Your task to perform on an android device: stop showing notifications on the lock screen Image 0: 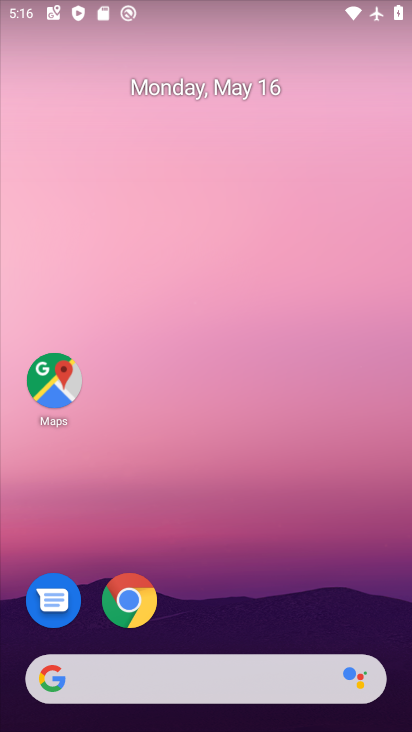
Step 0: drag from (216, 649) to (156, 59)
Your task to perform on an android device: stop showing notifications on the lock screen Image 1: 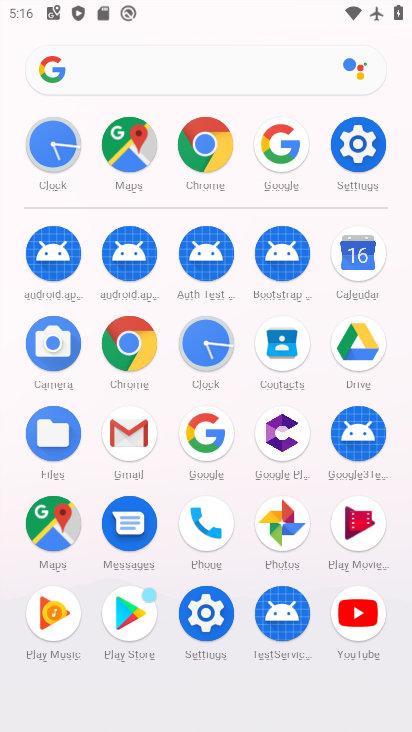
Step 1: click (199, 619)
Your task to perform on an android device: stop showing notifications on the lock screen Image 2: 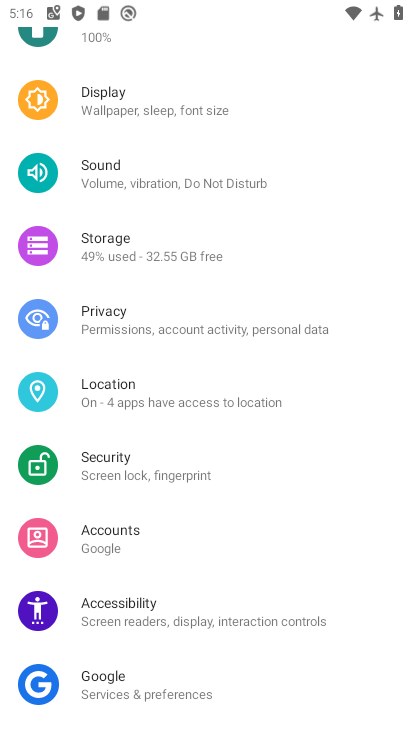
Step 2: drag from (184, 357) to (231, 673)
Your task to perform on an android device: stop showing notifications on the lock screen Image 3: 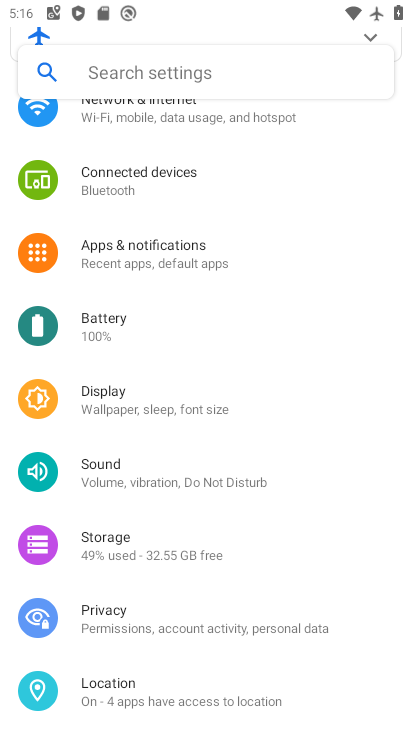
Step 3: click (160, 257)
Your task to perform on an android device: stop showing notifications on the lock screen Image 4: 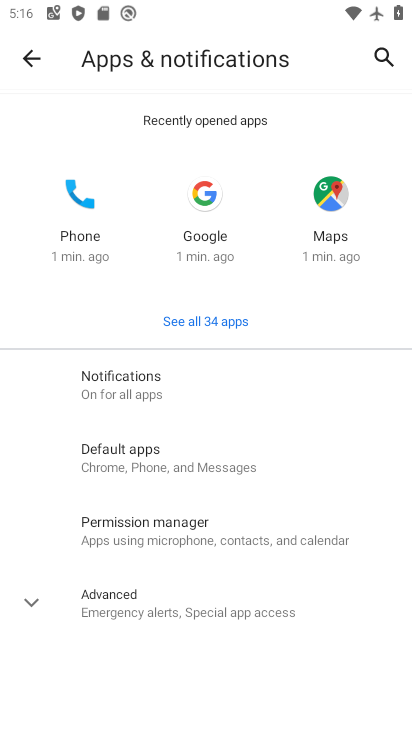
Step 4: click (136, 345)
Your task to perform on an android device: stop showing notifications on the lock screen Image 5: 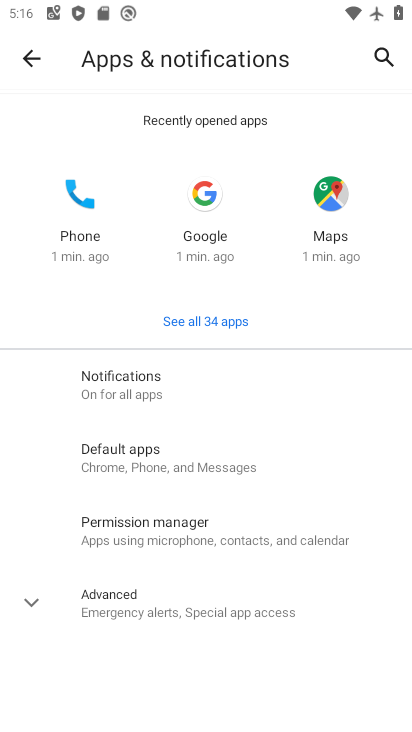
Step 5: click (140, 396)
Your task to perform on an android device: stop showing notifications on the lock screen Image 6: 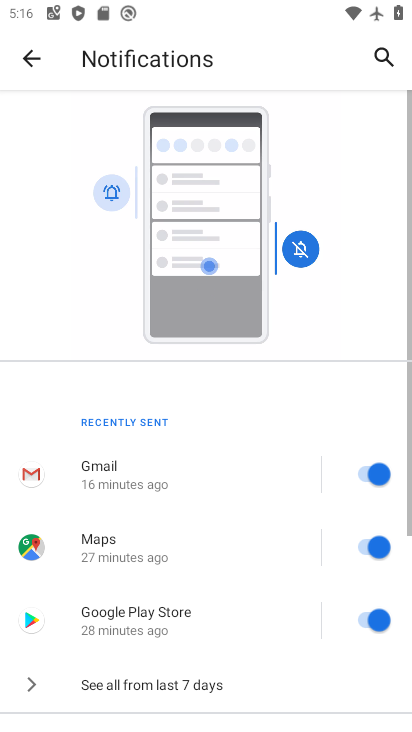
Step 6: drag from (203, 648) to (189, 180)
Your task to perform on an android device: stop showing notifications on the lock screen Image 7: 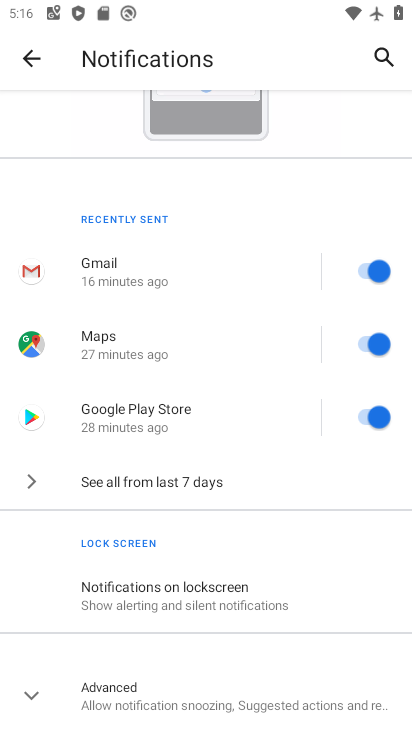
Step 7: click (224, 590)
Your task to perform on an android device: stop showing notifications on the lock screen Image 8: 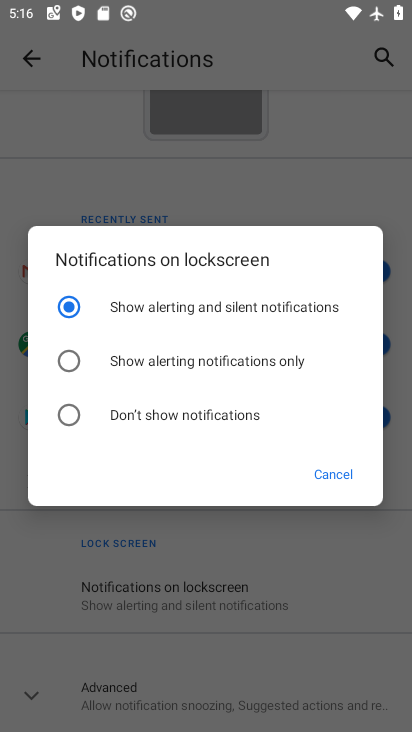
Step 8: click (168, 409)
Your task to perform on an android device: stop showing notifications on the lock screen Image 9: 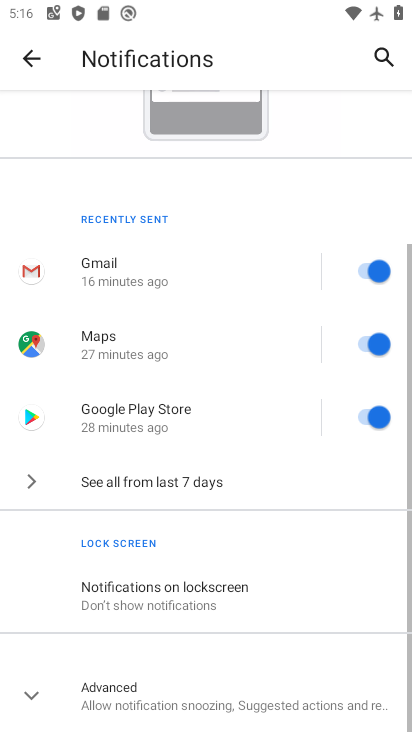
Step 9: task complete